Your task to perform on an android device: Open Wikipedia Image 0: 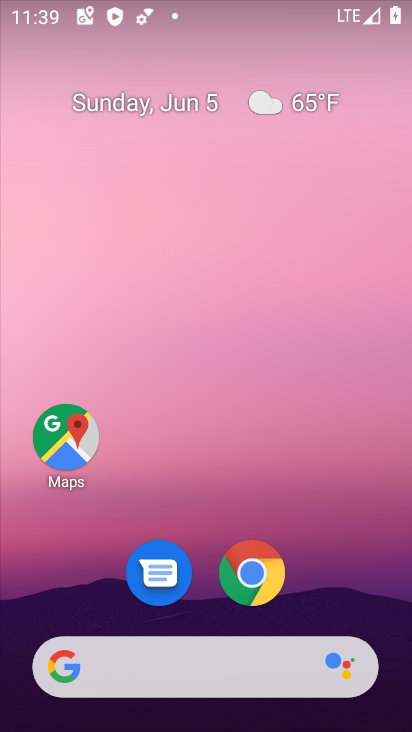
Step 0: drag from (270, 495) to (271, 81)
Your task to perform on an android device: Open Wikipedia Image 1: 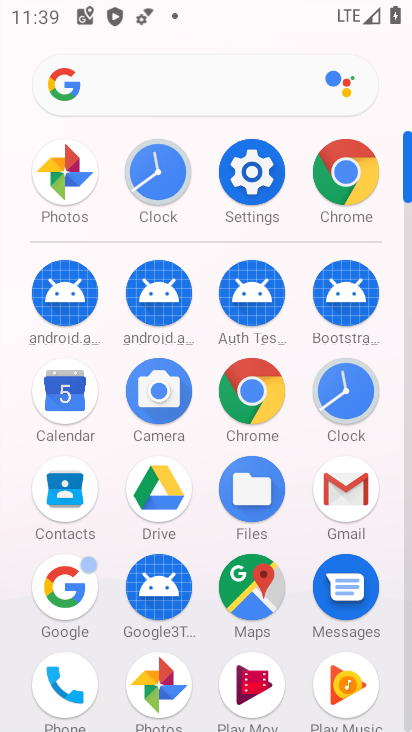
Step 1: drag from (215, 241) to (227, 110)
Your task to perform on an android device: Open Wikipedia Image 2: 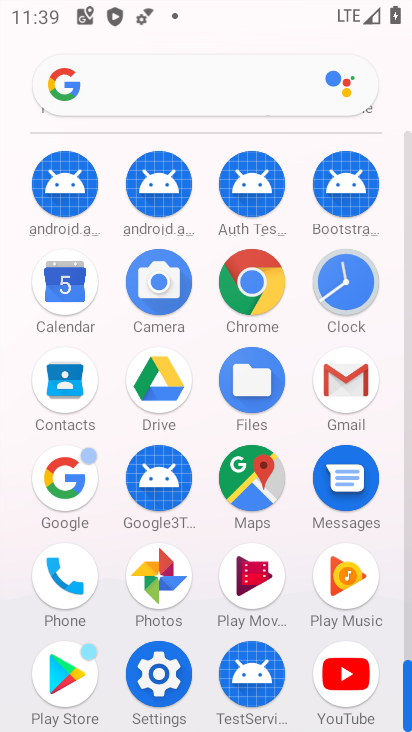
Step 2: click (266, 297)
Your task to perform on an android device: Open Wikipedia Image 3: 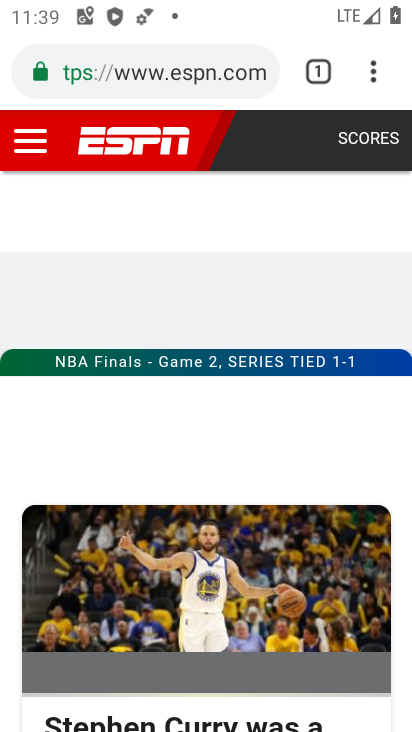
Step 3: click (367, 71)
Your task to perform on an android device: Open Wikipedia Image 4: 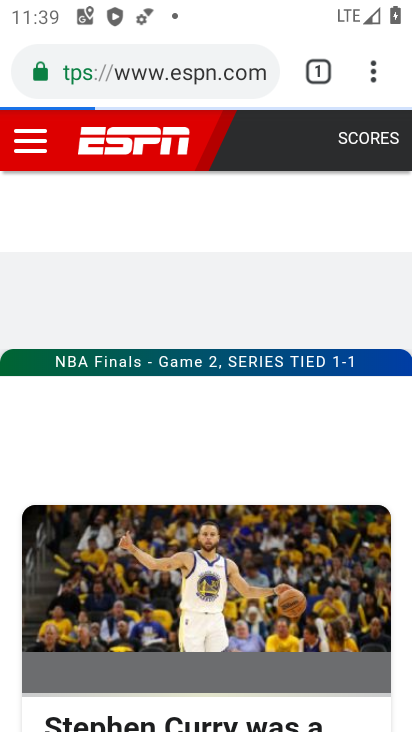
Step 4: click (164, 142)
Your task to perform on an android device: Open Wikipedia Image 5: 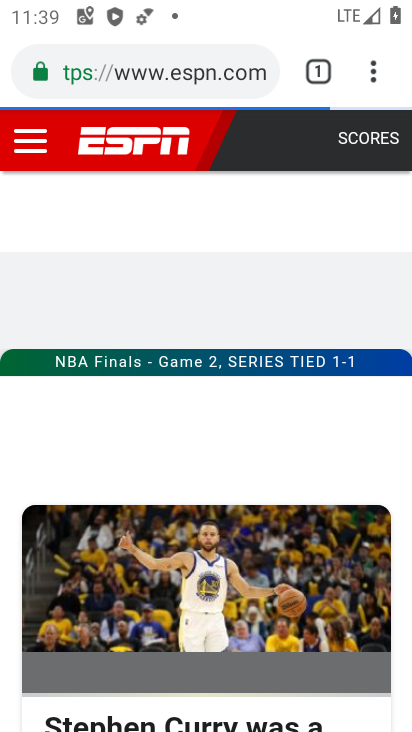
Step 5: click (317, 80)
Your task to perform on an android device: Open Wikipedia Image 6: 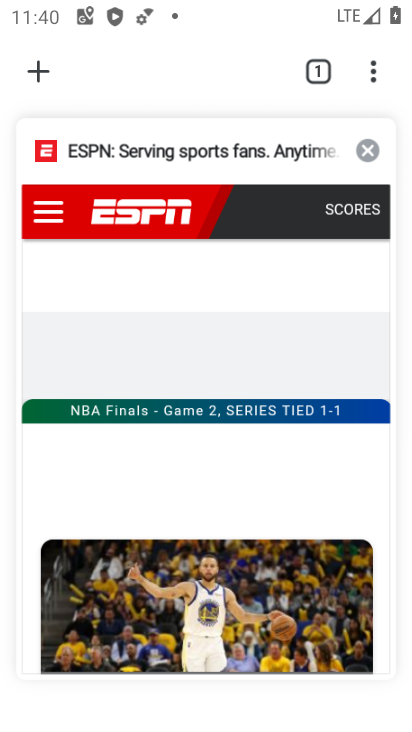
Step 6: click (42, 73)
Your task to perform on an android device: Open Wikipedia Image 7: 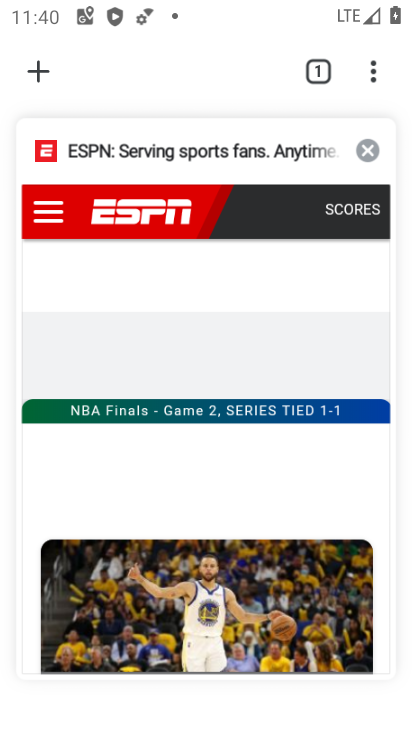
Step 7: click (45, 75)
Your task to perform on an android device: Open Wikipedia Image 8: 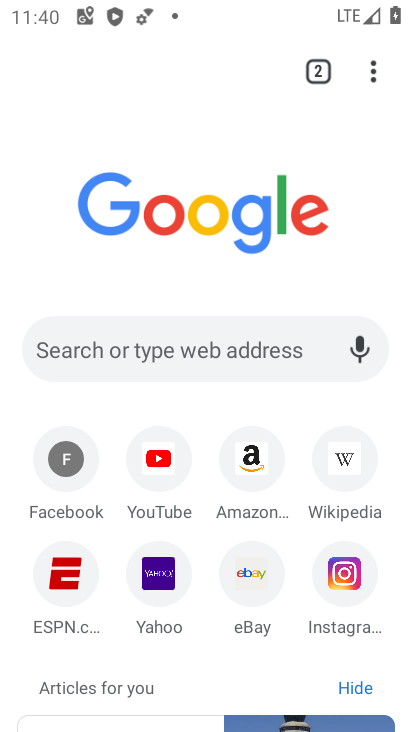
Step 8: click (337, 459)
Your task to perform on an android device: Open Wikipedia Image 9: 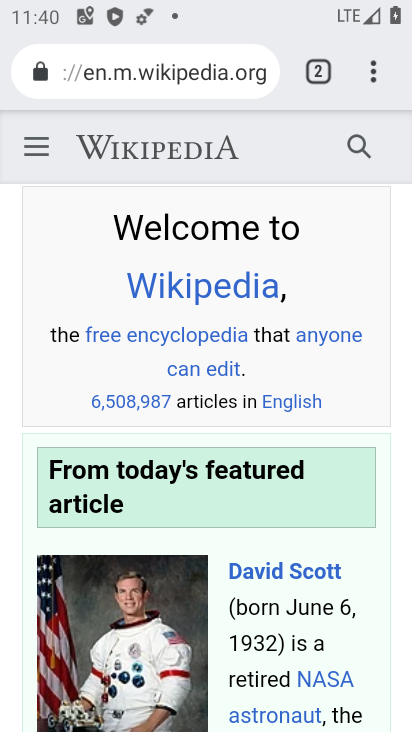
Step 9: task complete